Your task to perform on an android device: change alarm snooze length Image 0: 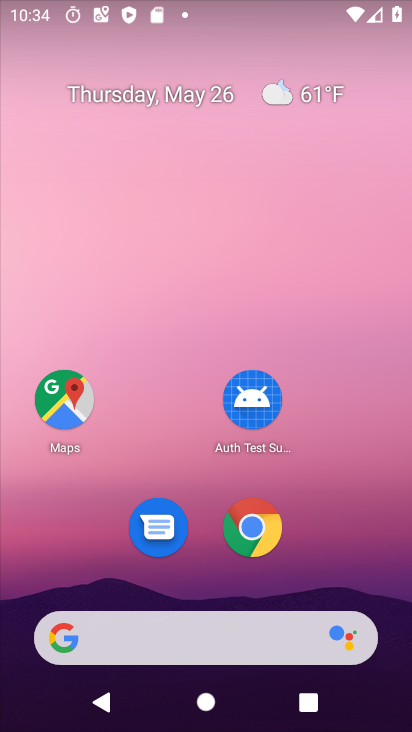
Step 0: drag from (361, 513) to (389, 44)
Your task to perform on an android device: change alarm snooze length Image 1: 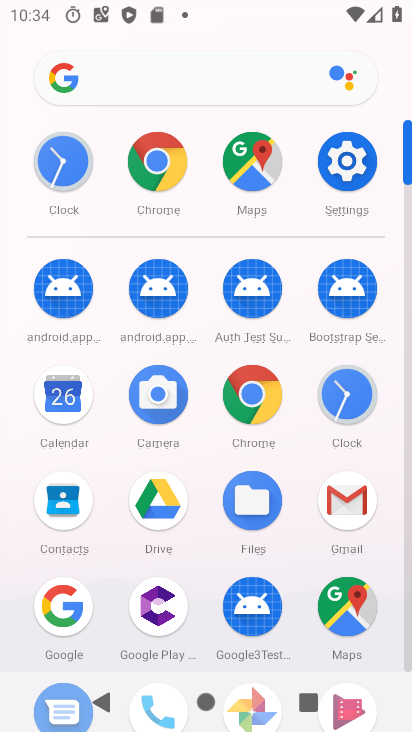
Step 1: click (65, 171)
Your task to perform on an android device: change alarm snooze length Image 2: 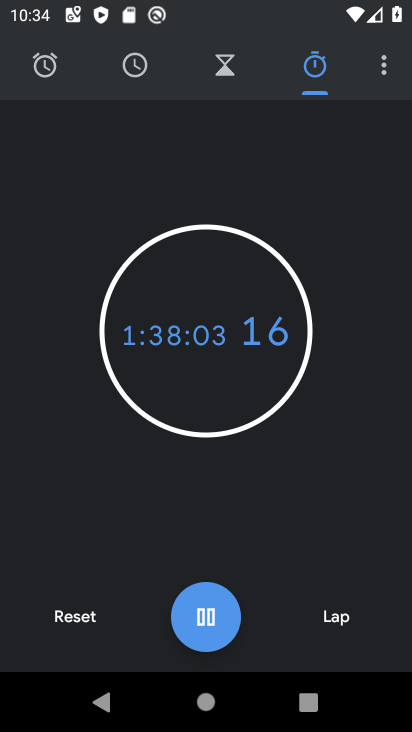
Step 2: click (390, 73)
Your task to perform on an android device: change alarm snooze length Image 3: 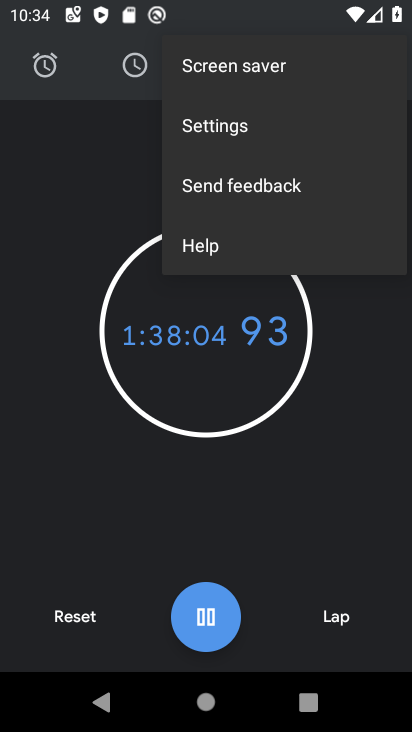
Step 3: click (242, 132)
Your task to perform on an android device: change alarm snooze length Image 4: 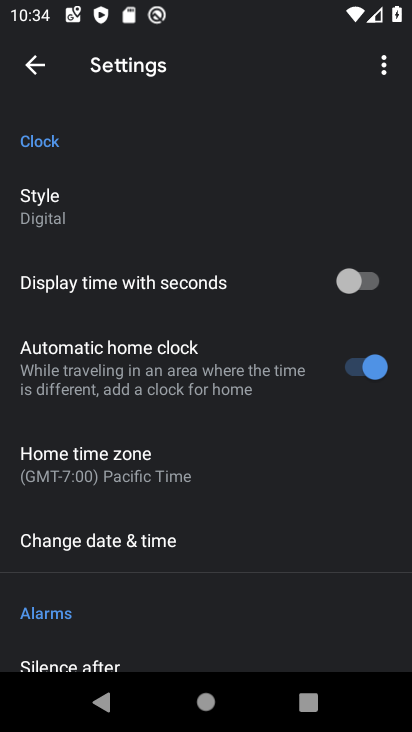
Step 4: drag from (173, 562) to (255, 229)
Your task to perform on an android device: change alarm snooze length Image 5: 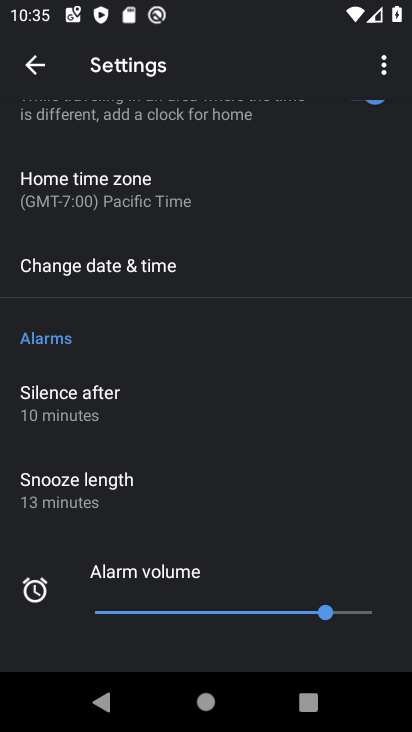
Step 5: click (30, 494)
Your task to perform on an android device: change alarm snooze length Image 6: 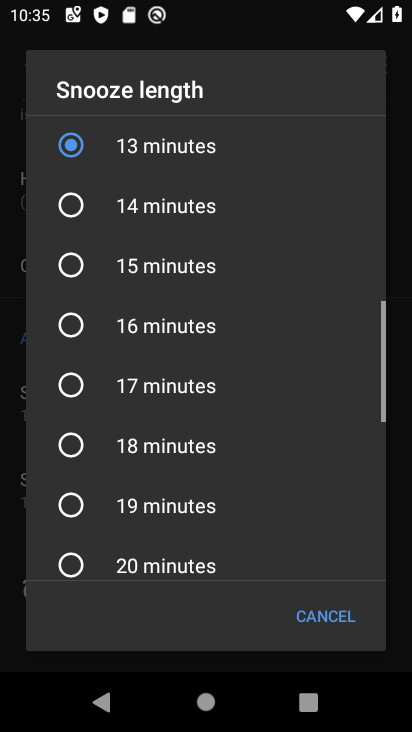
Step 6: click (132, 389)
Your task to perform on an android device: change alarm snooze length Image 7: 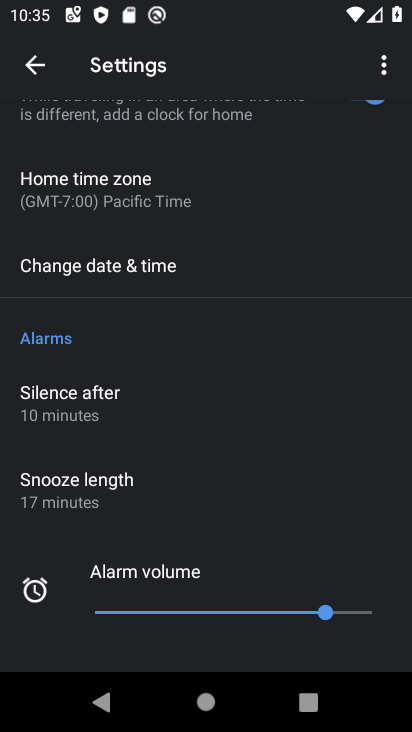
Step 7: task complete